Your task to perform on an android device: Check the news Image 0: 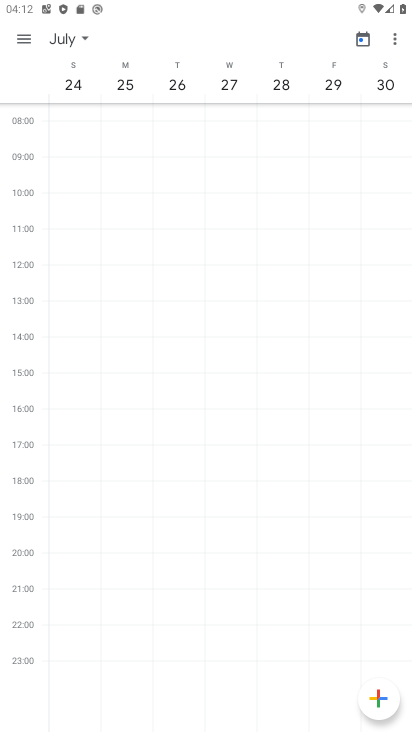
Step 0: press home button
Your task to perform on an android device: Check the news Image 1: 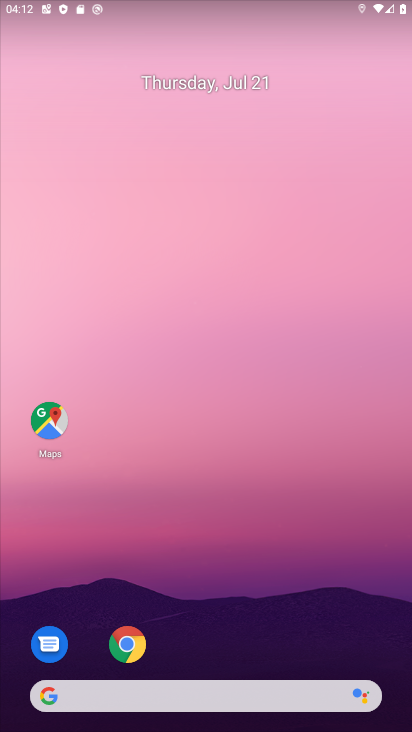
Step 1: click (101, 692)
Your task to perform on an android device: Check the news Image 2: 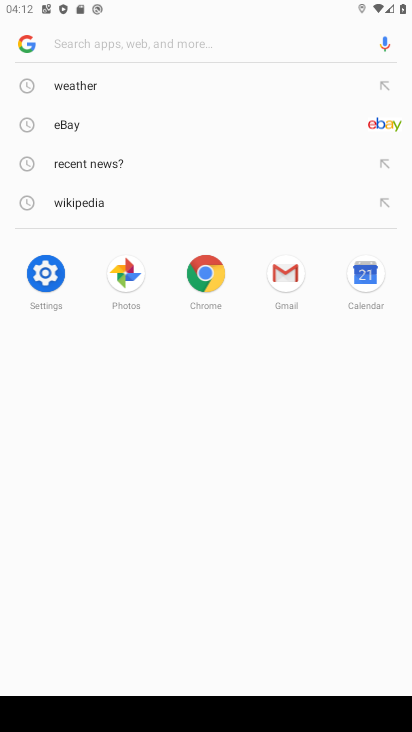
Step 2: type "news"
Your task to perform on an android device: Check the news Image 3: 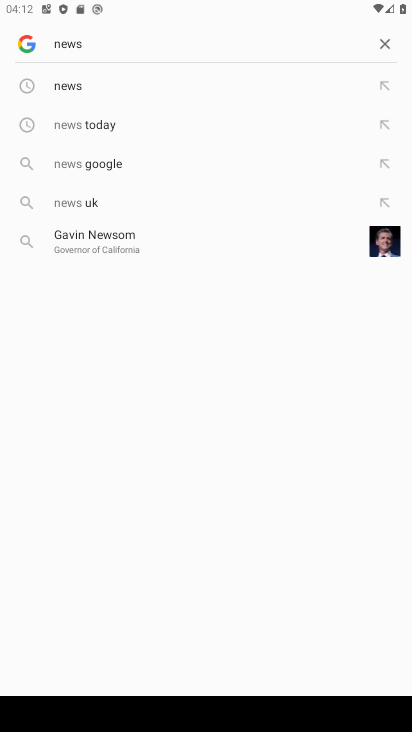
Step 3: click (73, 86)
Your task to perform on an android device: Check the news Image 4: 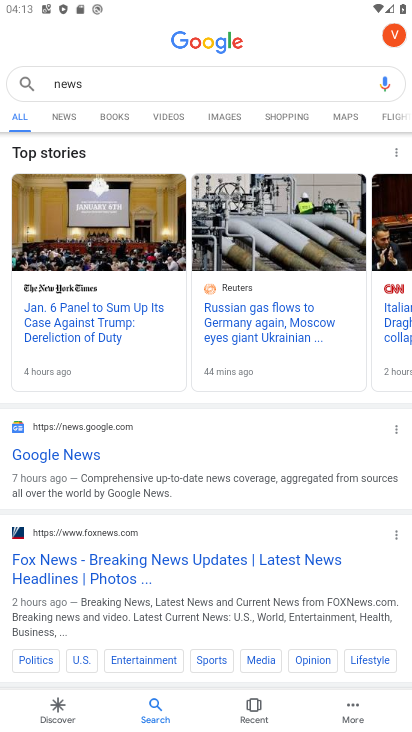
Step 4: click (62, 120)
Your task to perform on an android device: Check the news Image 5: 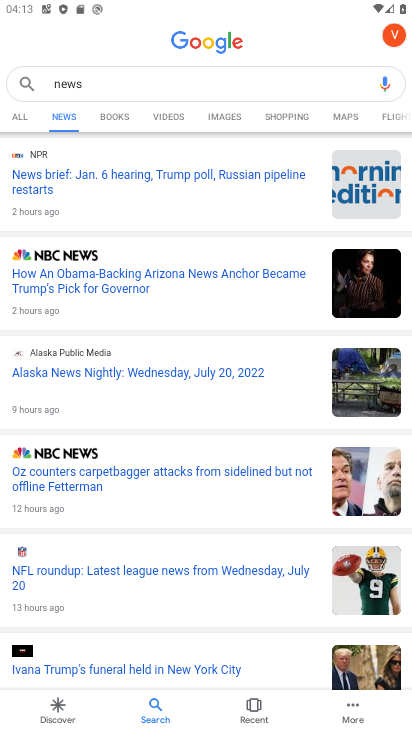
Step 5: task complete